Your task to perform on an android device: Go to location settings Image 0: 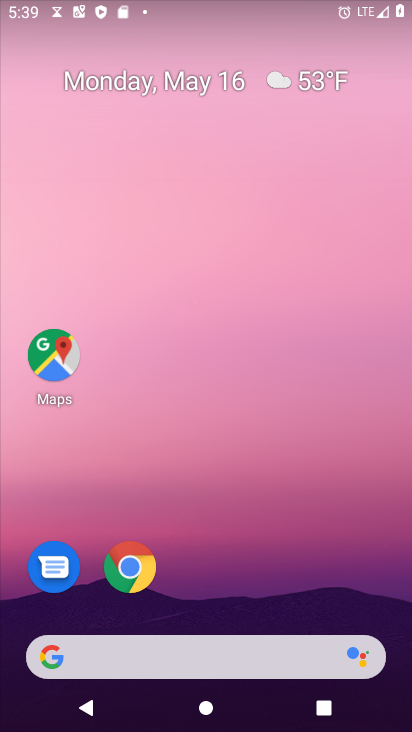
Step 0: drag from (307, 626) to (302, 8)
Your task to perform on an android device: Go to location settings Image 1: 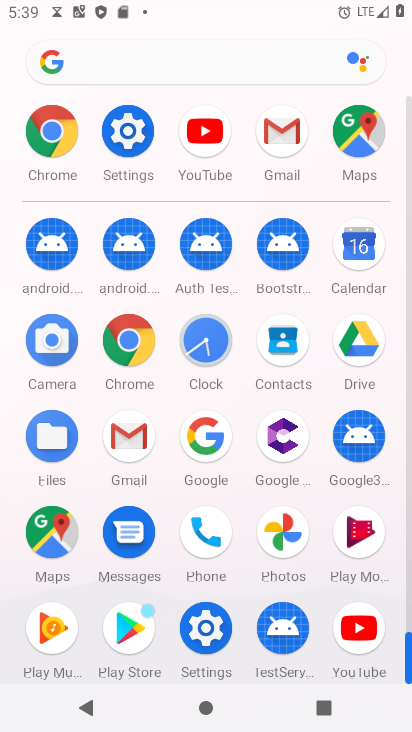
Step 1: click (91, 133)
Your task to perform on an android device: Go to location settings Image 2: 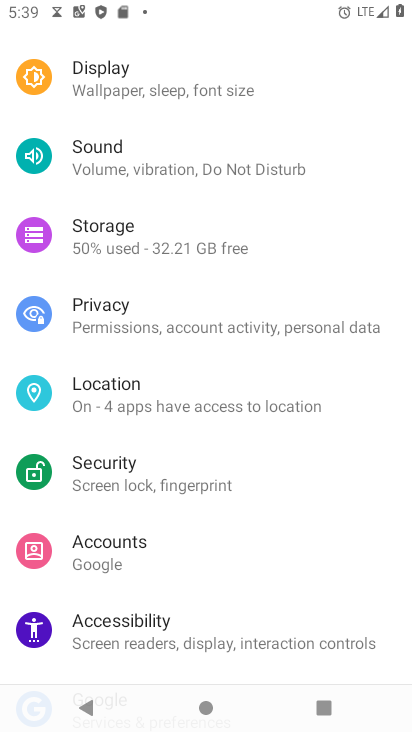
Step 2: click (239, 401)
Your task to perform on an android device: Go to location settings Image 3: 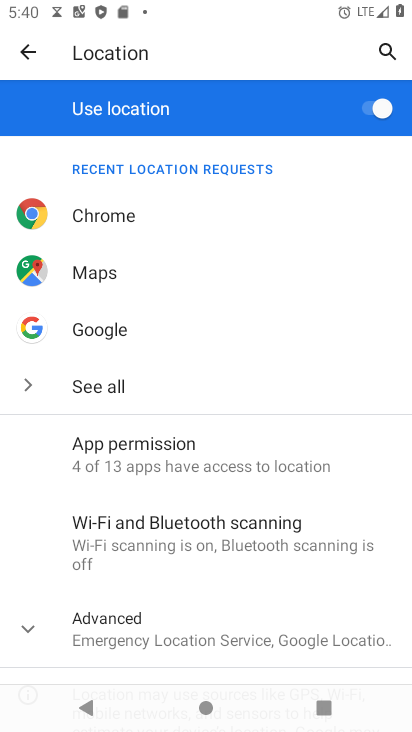
Step 3: task complete